Your task to perform on an android device: Open the stopwatch Image 0: 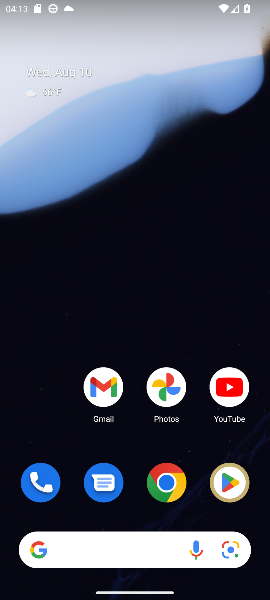
Step 0: drag from (196, 494) to (222, 99)
Your task to perform on an android device: Open the stopwatch Image 1: 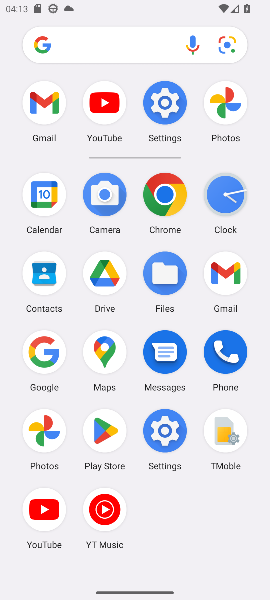
Step 1: click (230, 191)
Your task to perform on an android device: Open the stopwatch Image 2: 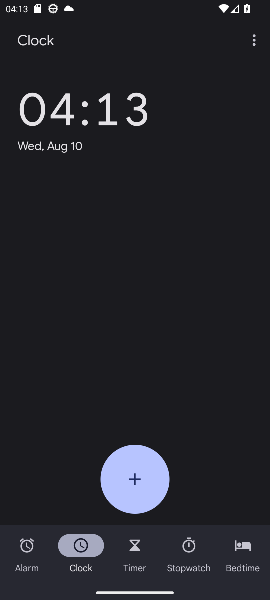
Step 2: click (196, 546)
Your task to perform on an android device: Open the stopwatch Image 3: 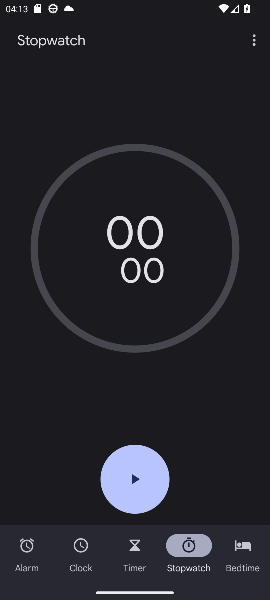
Step 3: click (116, 476)
Your task to perform on an android device: Open the stopwatch Image 4: 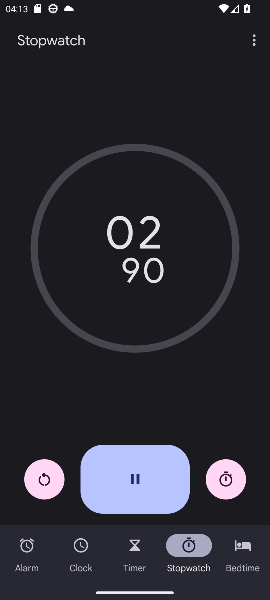
Step 4: task complete